Your task to perform on an android device: Is it going to rain tomorrow? Image 0: 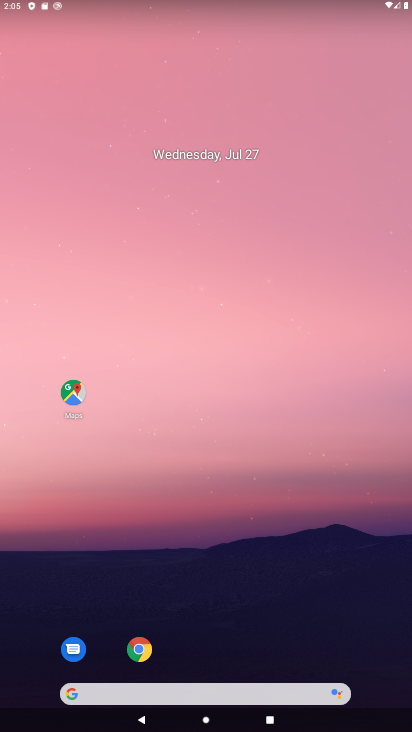
Step 0: drag from (297, 558) to (101, 81)
Your task to perform on an android device: Is it going to rain tomorrow? Image 1: 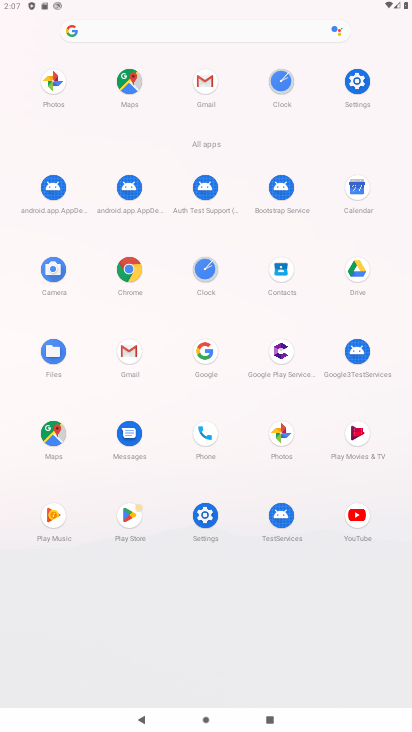
Step 1: click (199, 350)
Your task to perform on an android device: Is it going to rain tomorrow? Image 2: 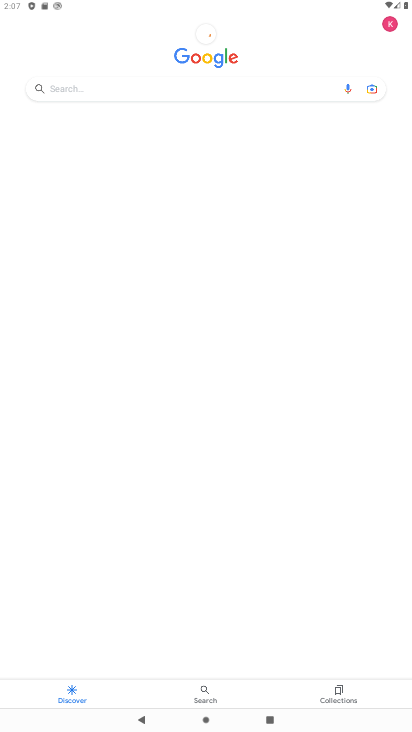
Step 2: click (73, 94)
Your task to perform on an android device: Is it going to rain tomorrow? Image 3: 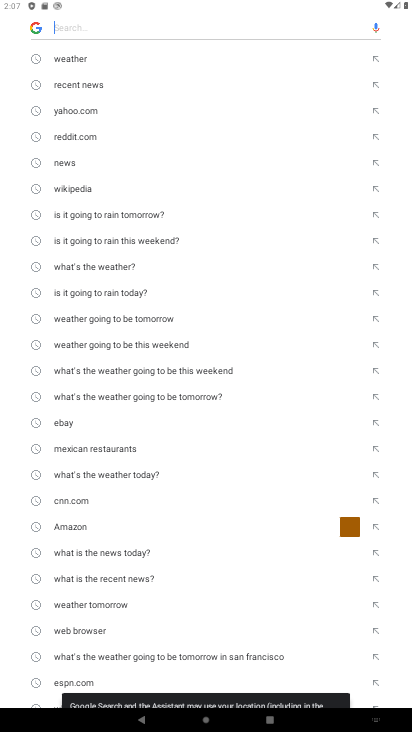
Step 3: type "Is it going to rain tomorrow?"
Your task to perform on an android device: Is it going to rain tomorrow? Image 4: 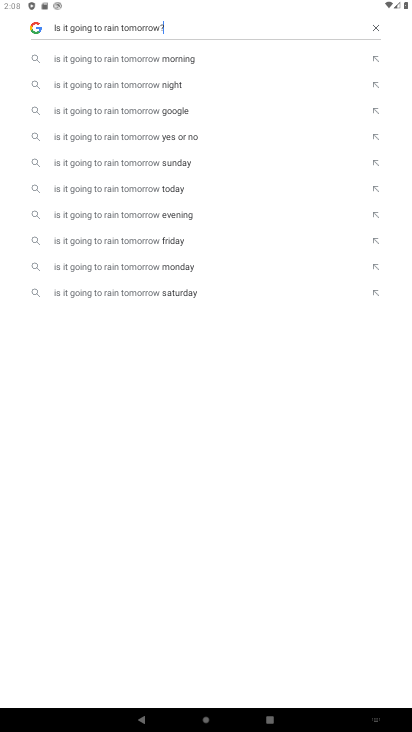
Step 4: click (155, 113)
Your task to perform on an android device: Is it going to rain tomorrow? Image 5: 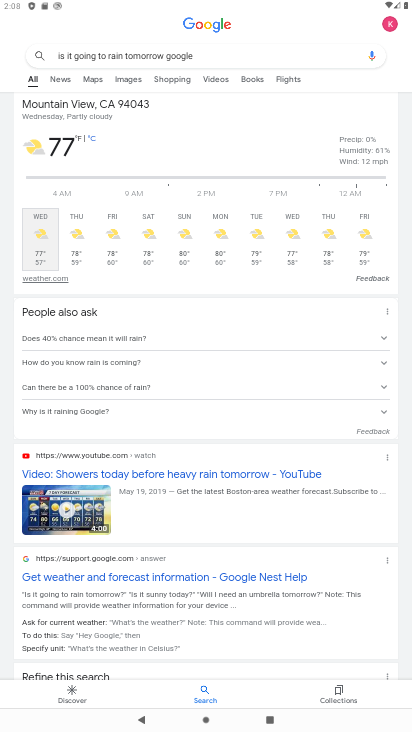
Step 5: task complete